Your task to perform on an android device: Open Wikipedia Image 0: 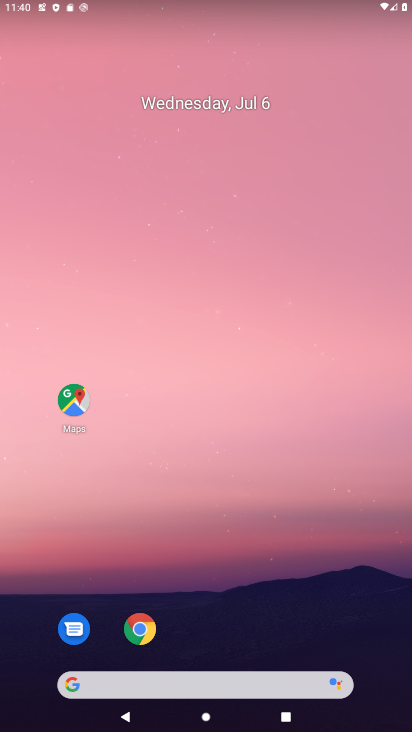
Step 0: click (146, 630)
Your task to perform on an android device: Open Wikipedia Image 1: 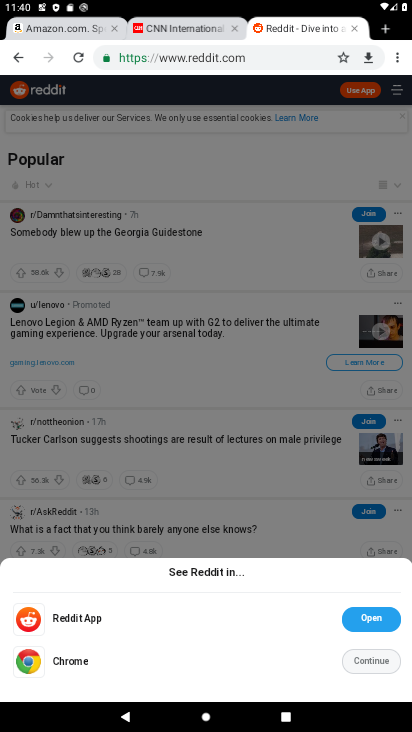
Step 1: click (377, 28)
Your task to perform on an android device: Open Wikipedia Image 2: 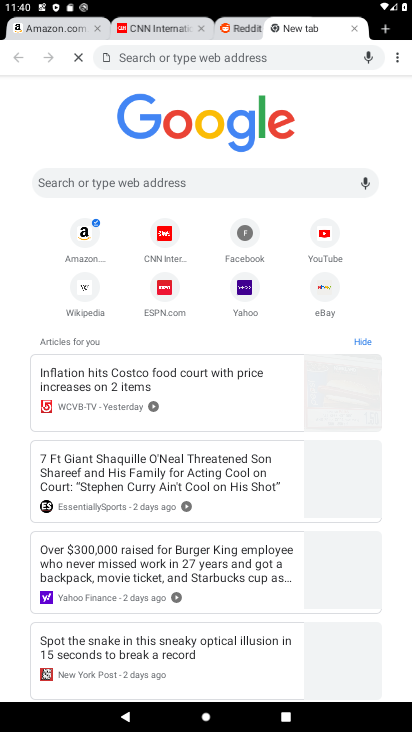
Step 2: click (382, 28)
Your task to perform on an android device: Open Wikipedia Image 3: 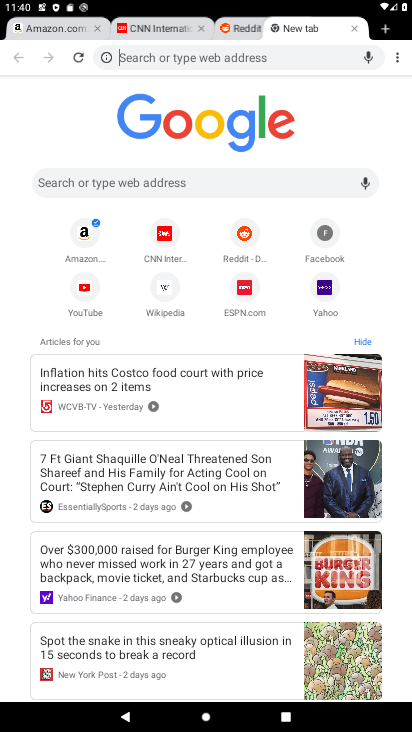
Step 3: click (195, 181)
Your task to perform on an android device: Open Wikipedia Image 4: 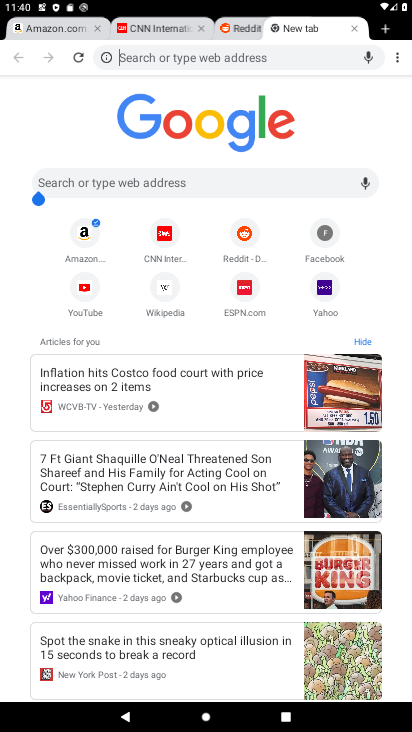
Step 4: click (156, 282)
Your task to perform on an android device: Open Wikipedia Image 5: 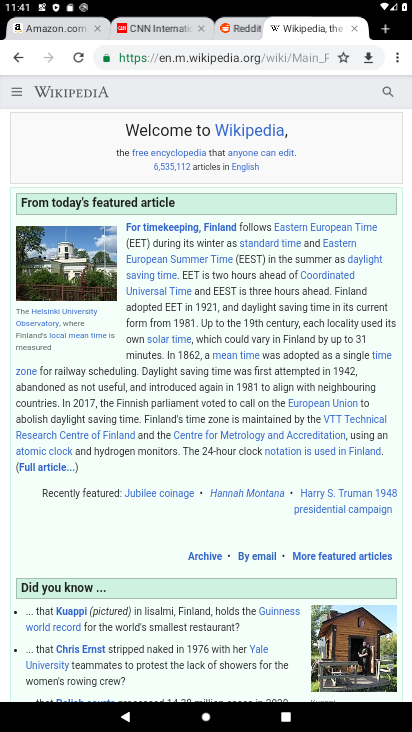
Step 5: task complete